Your task to perform on an android device: check out phone information Image 0: 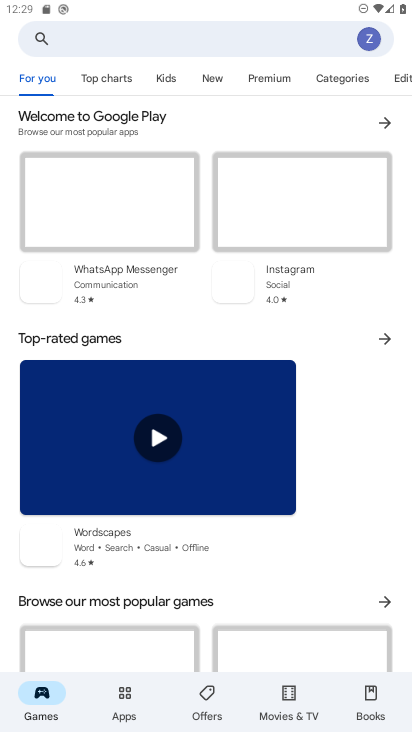
Step 0: press home button
Your task to perform on an android device: check out phone information Image 1: 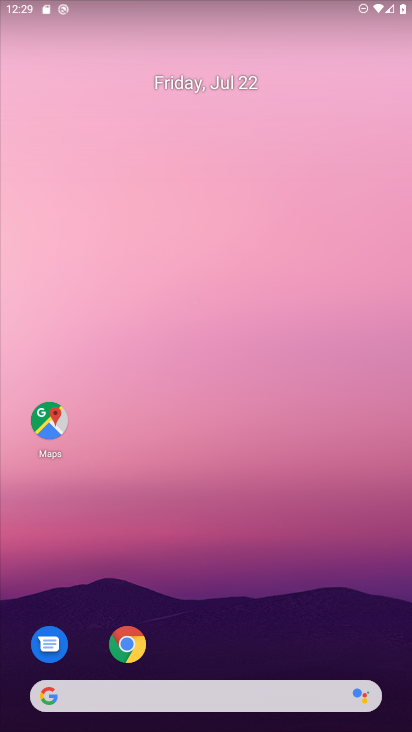
Step 1: drag from (154, 616) to (131, 242)
Your task to perform on an android device: check out phone information Image 2: 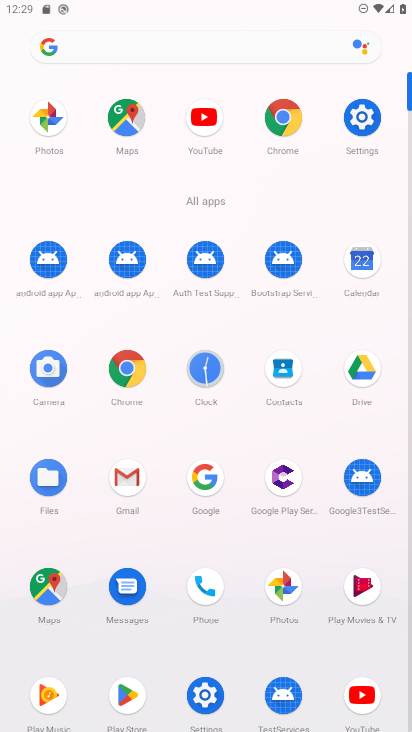
Step 2: click (359, 126)
Your task to perform on an android device: check out phone information Image 3: 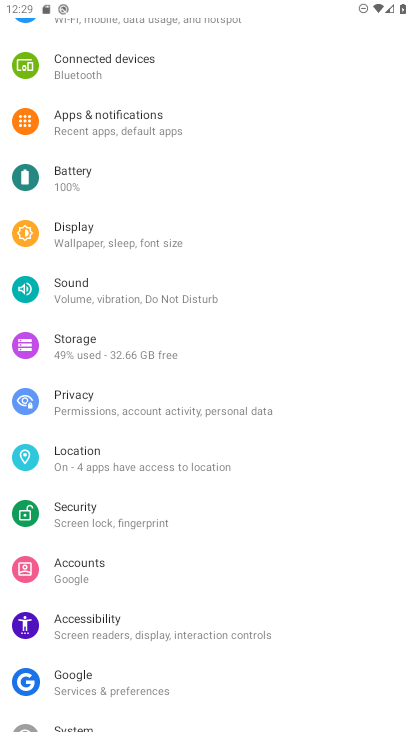
Step 3: drag from (188, 696) to (284, 254)
Your task to perform on an android device: check out phone information Image 4: 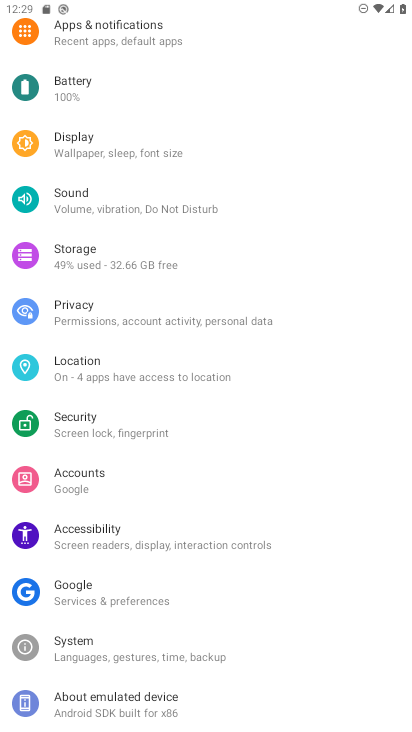
Step 4: click (137, 723)
Your task to perform on an android device: check out phone information Image 5: 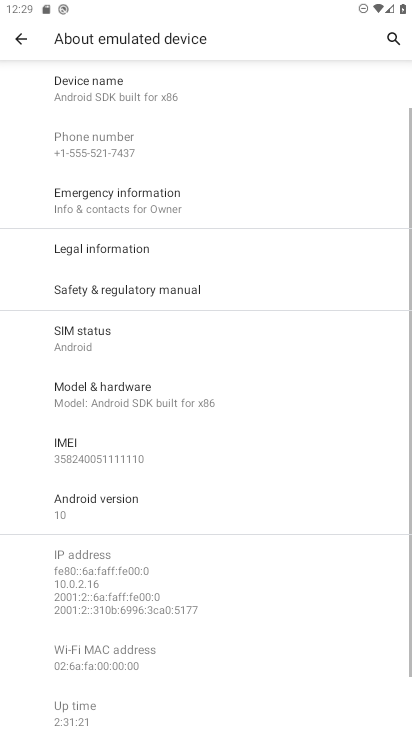
Step 5: task complete